Your task to perform on an android device: toggle show notifications on the lock screen Image 0: 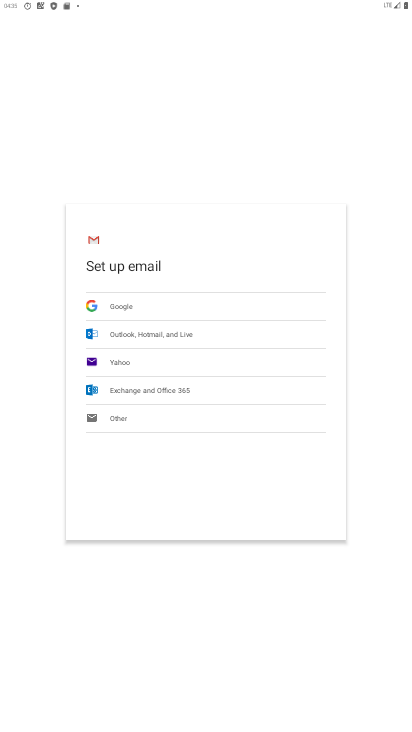
Step 0: press home button
Your task to perform on an android device: toggle show notifications on the lock screen Image 1: 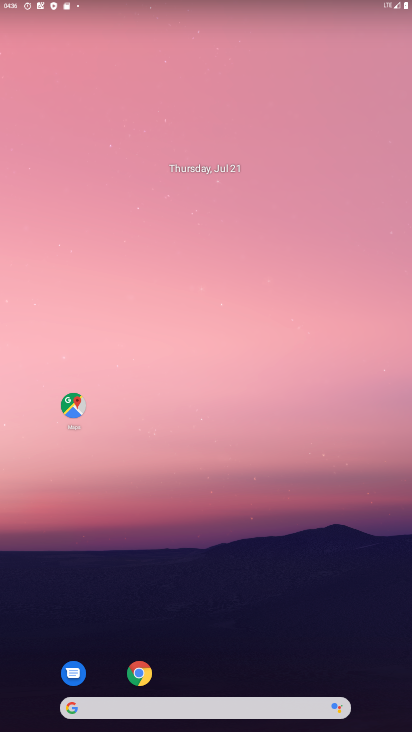
Step 1: click (197, 155)
Your task to perform on an android device: toggle show notifications on the lock screen Image 2: 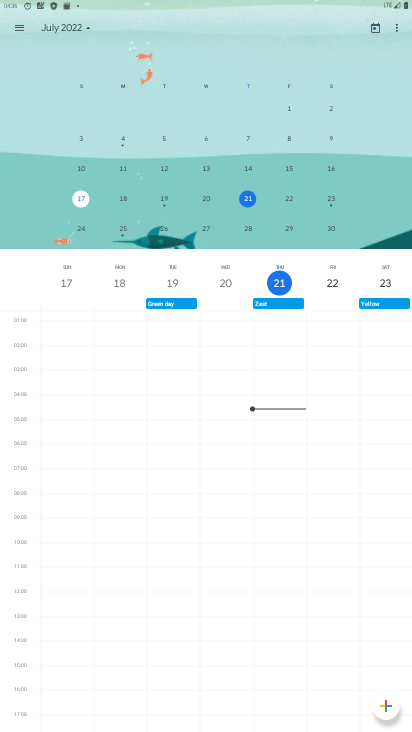
Step 2: press home button
Your task to perform on an android device: toggle show notifications on the lock screen Image 3: 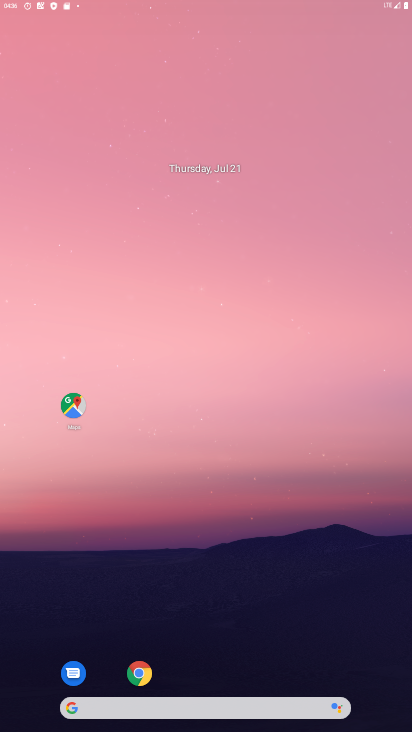
Step 3: drag from (231, 306) to (240, 57)
Your task to perform on an android device: toggle show notifications on the lock screen Image 4: 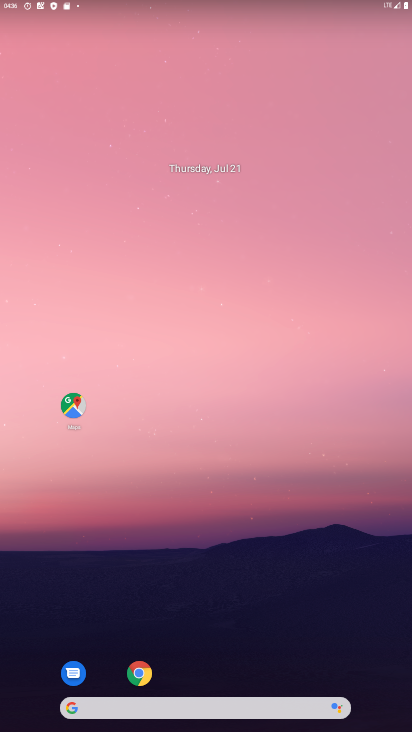
Step 4: drag from (243, 640) to (207, 133)
Your task to perform on an android device: toggle show notifications on the lock screen Image 5: 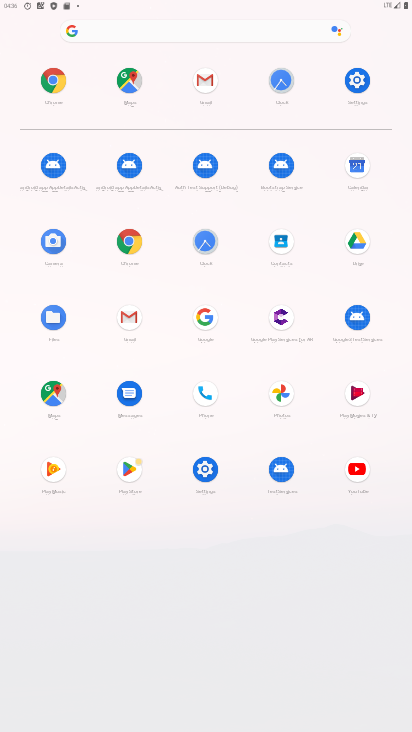
Step 5: click (353, 73)
Your task to perform on an android device: toggle show notifications on the lock screen Image 6: 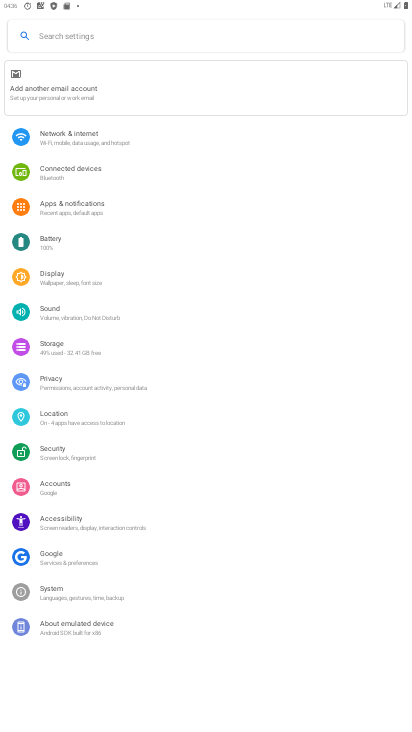
Step 6: click (87, 214)
Your task to perform on an android device: toggle show notifications on the lock screen Image 7: 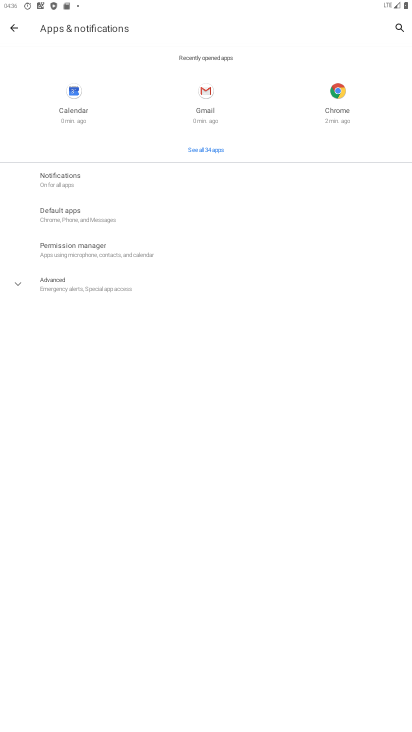
Step 7: click (78, 189)
Your task to perform on an android device: toggle show notifications on the lock screen Image 8: 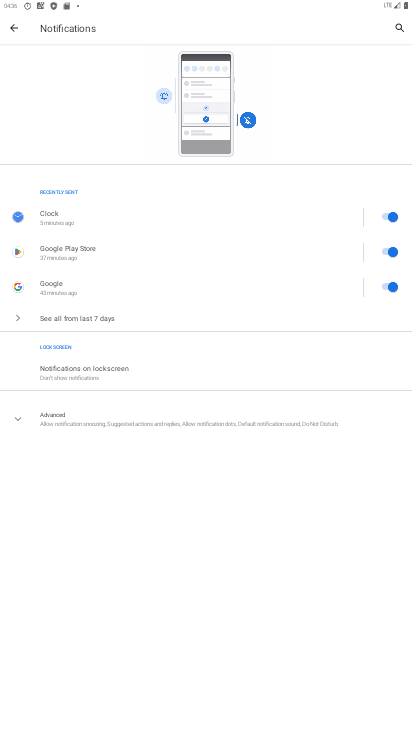
Step 8: click (107, 363)
Your task to perform on an android device: toggle show notifications on the lock screen Image 9: 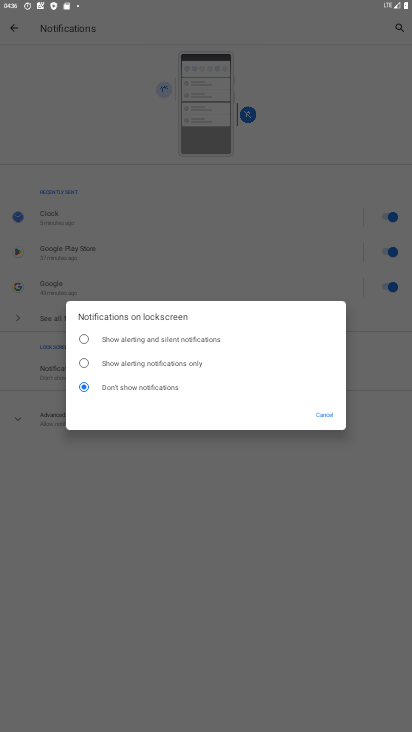
Step 9: click (131, 358)
Your task to perform on an android device: toggle show notifications on the lock screen Image 10: 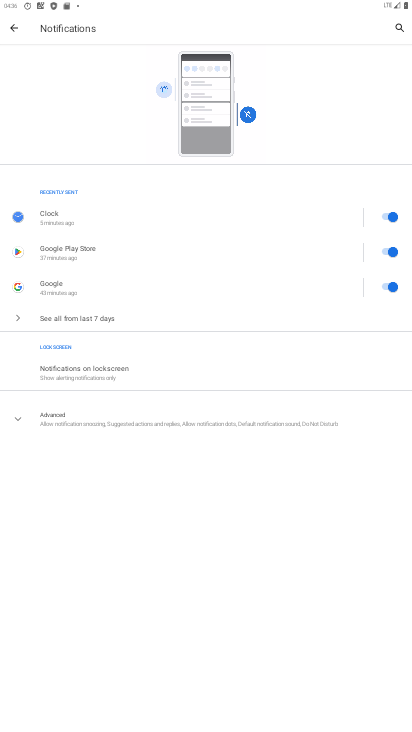
Step 10: task complete